Your task to perform on an android device: turn notification dots on Image 0: 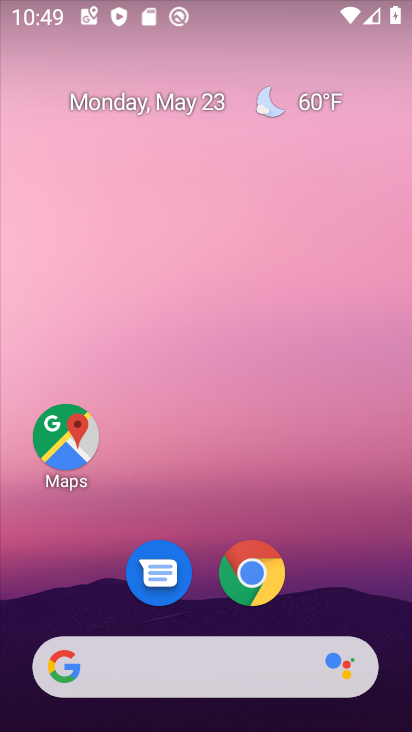
Step 0: drag from (327, 578) to (317, 44)
Your task to perform on an android device: turn notification dots on Image 1: 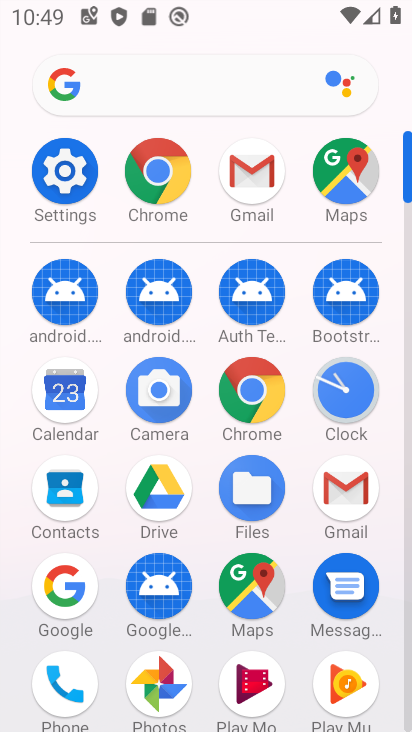
Step 1: click (64, 166)
Your task to perform on an android device: turn notification dots on Image 2: 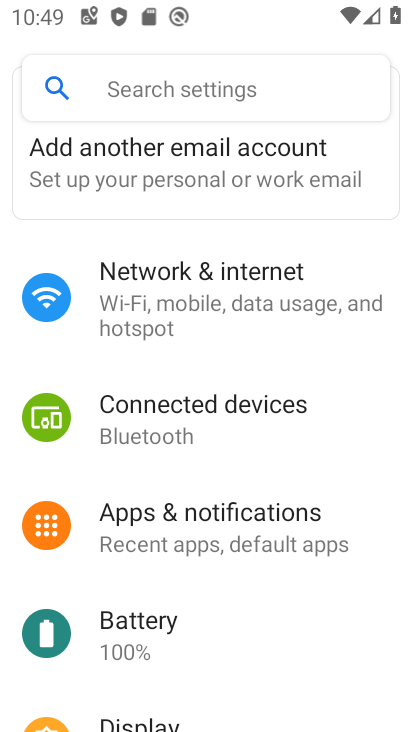
Step 2: click (222, 516)
Your task to perform on an android device: turn notification dots on Image 3: 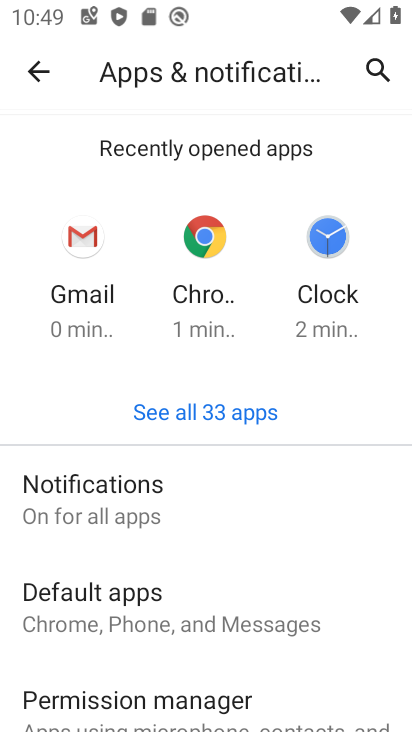
Step 3: click (184, 512)
Your task to perform on an android device: turn notification dots on Image 4: 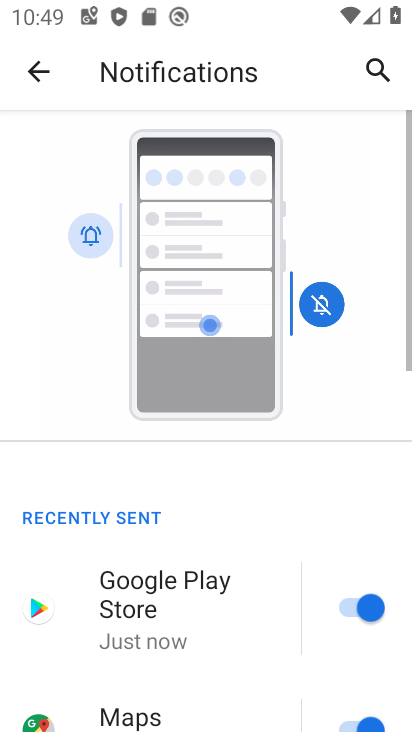
Step 4: drag from (235, 614) to (262, 150)
Your task to perform on an android device: turn notification dots on Image 5: 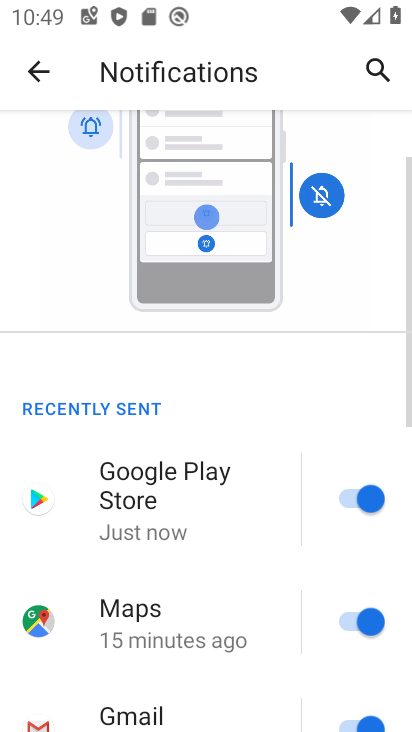
Step 5: drag from (225, 565) to (243, 132)
Your task to perform on an android device: turn notification dots on Image 6: 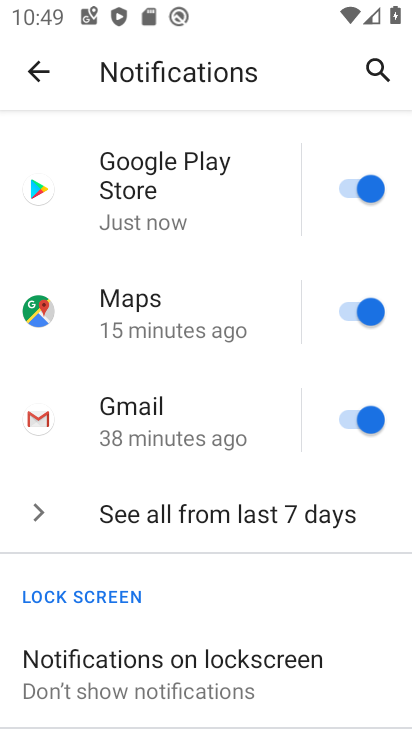
Step 6: drag from (249, 587) to (247, 149)
Your task to perform on an android device: turn notification dots on Image 7: 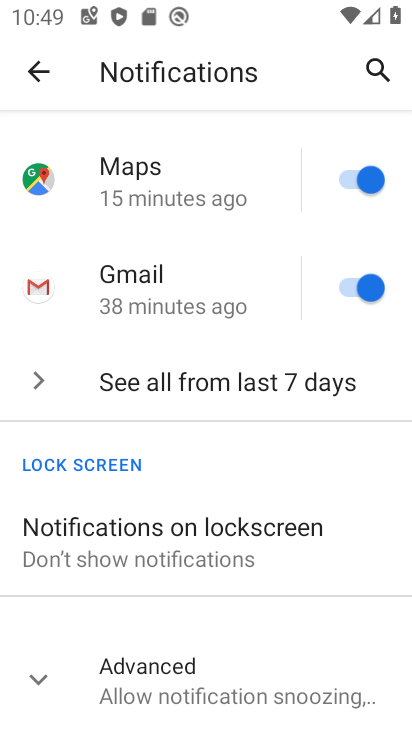
Step 7: click (76, 666)
Your task to perform on an android device: turn notification dots on Image 8: 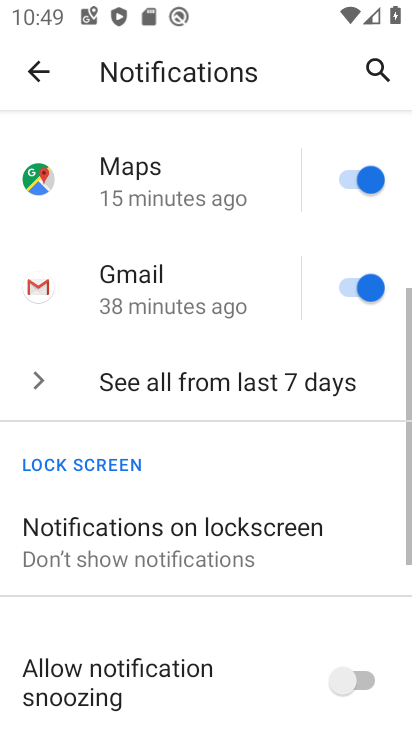
Step 8: task complete